Your task to perform on an android device: View the shopping cart on costco. Search for logitech g pro on costco, select the first entry, add it to the cart, then select checkout. Image 0: 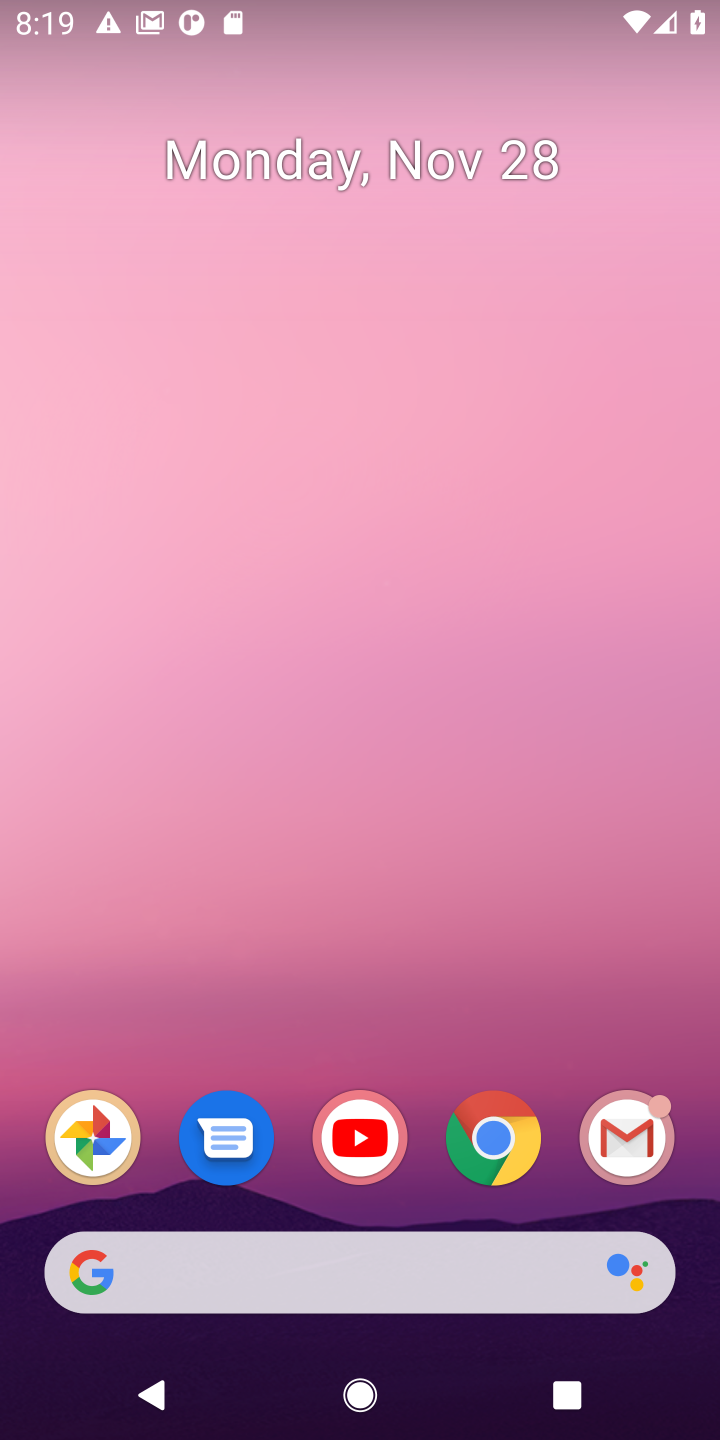
Step 0: click (498, 1142)
Your task to perform on an android device: View the shopping cart on costco. Search for logitech g pro on costco, select the first entry, add it to the cart, then select checkout. Image 1: 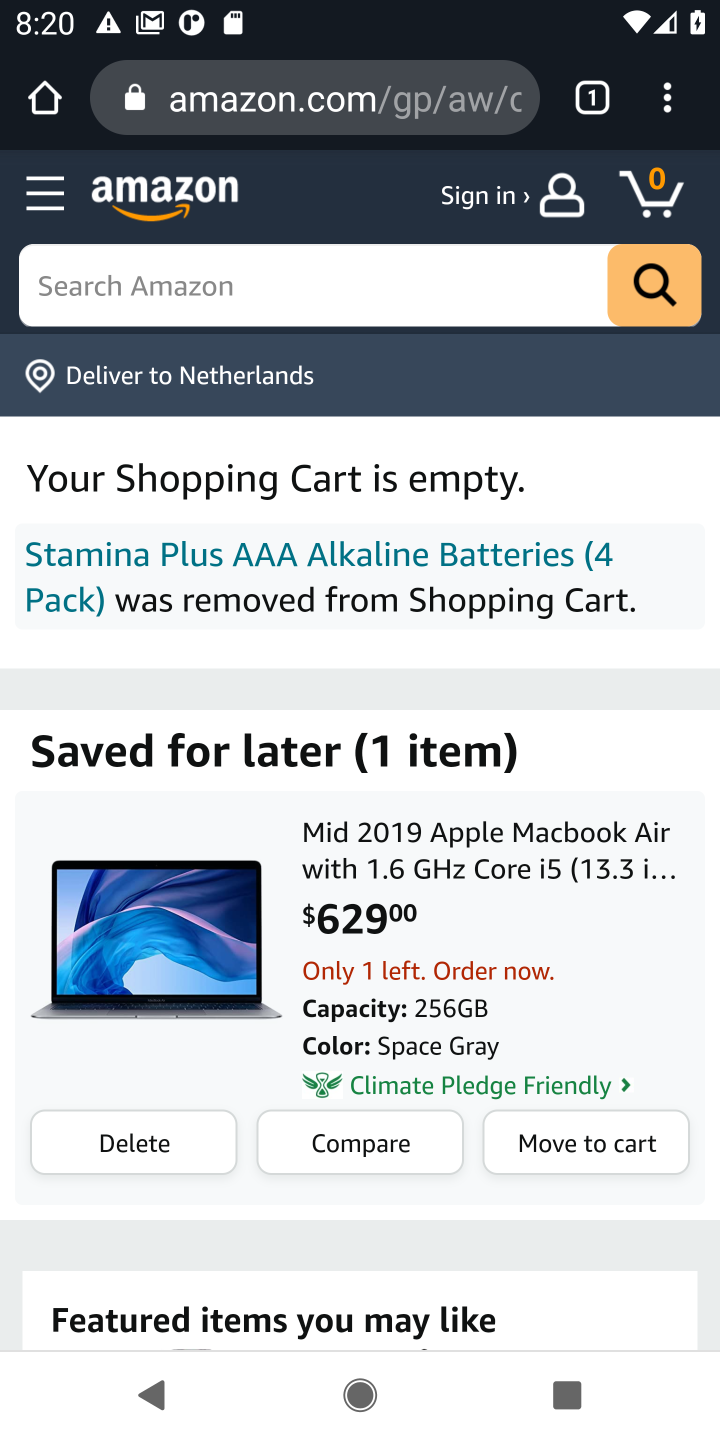
Step 1: click (262, 107)
Your task to perform on an android device: View the shopping cart on costco. Search for logitech g pro on costco, select the first entry, add it to the cart, then select checkout. Image 2: 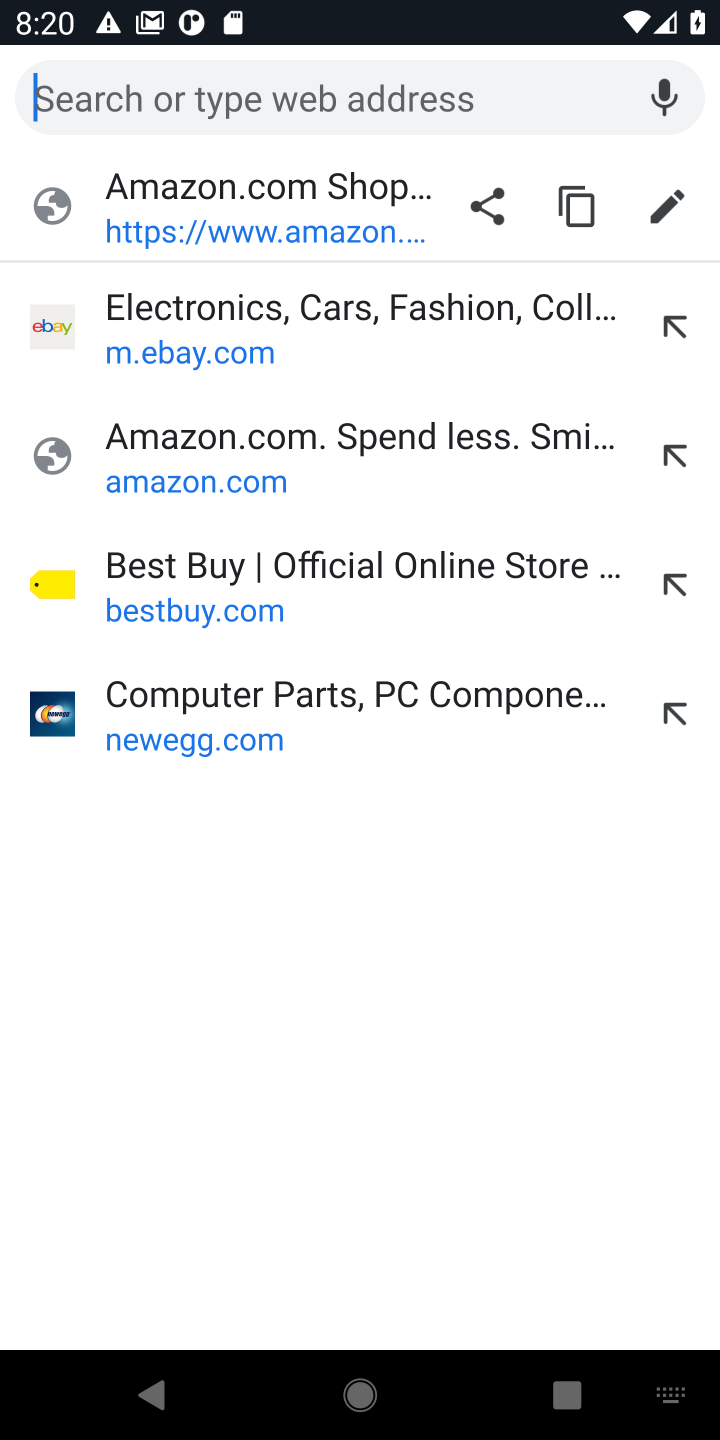
Step 2: type "costco.com"
Your task to perform on an android device: View the shopping cart on costco. Search for logitech g pro on costco, select the first entry, add it to the cart, then select checkout. Image 3: 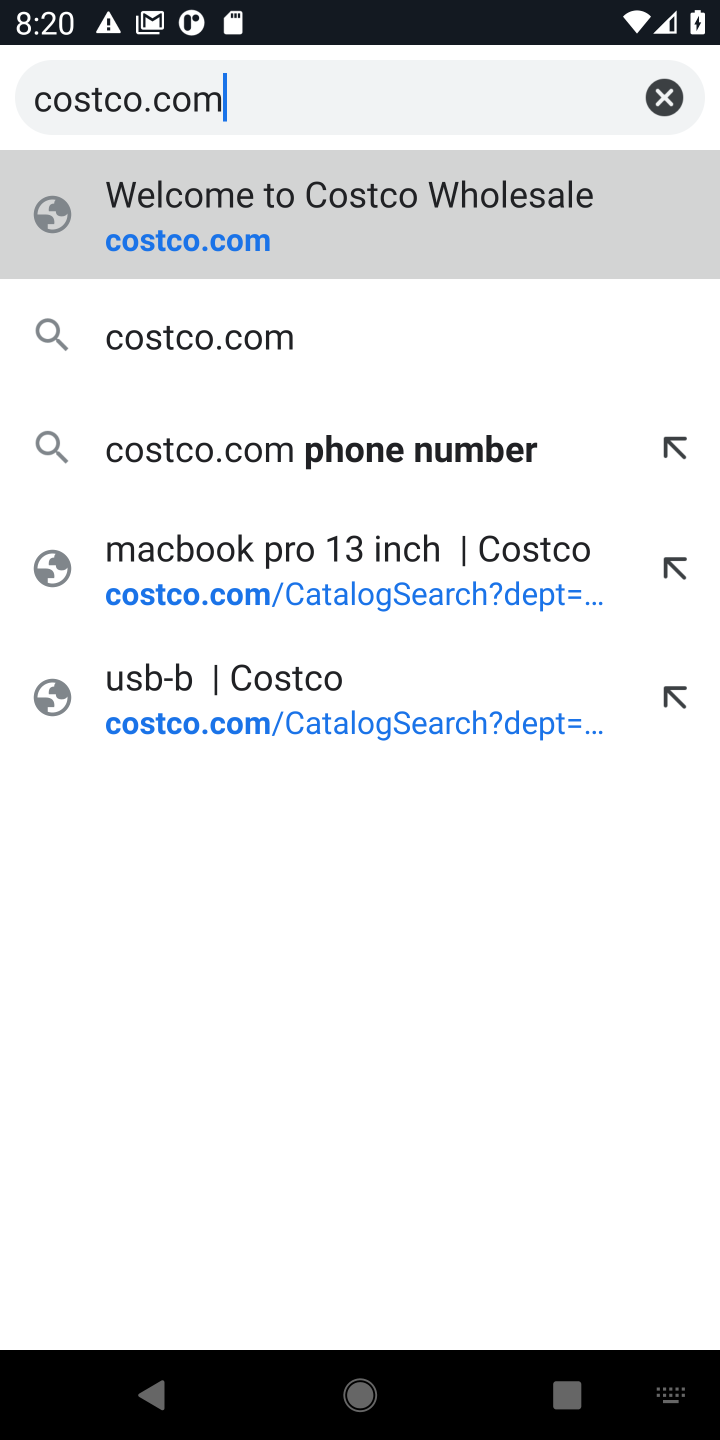
Step 3: click (206, 234)
Your task to perform on an android device: View the shopping cart on costco. Search for logitech g pro on costco, select the first entry, add it to the cart, then select checkout. Image 4: 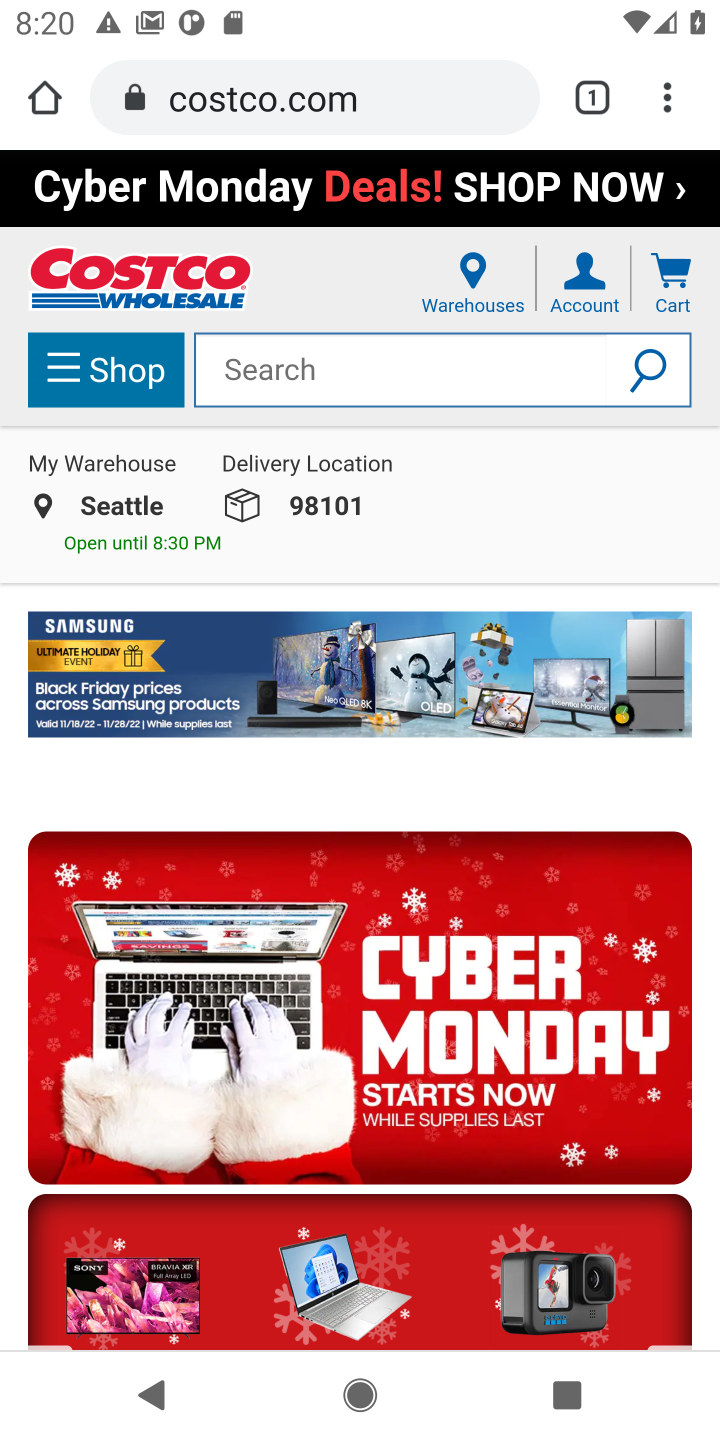
Step 4: click (660, 298)
Your task to perform on an android device: View the shopping cart on costco. Search for logitech g pro on costco, select the first entry, add it to the cart, then select checkout. Image 5: 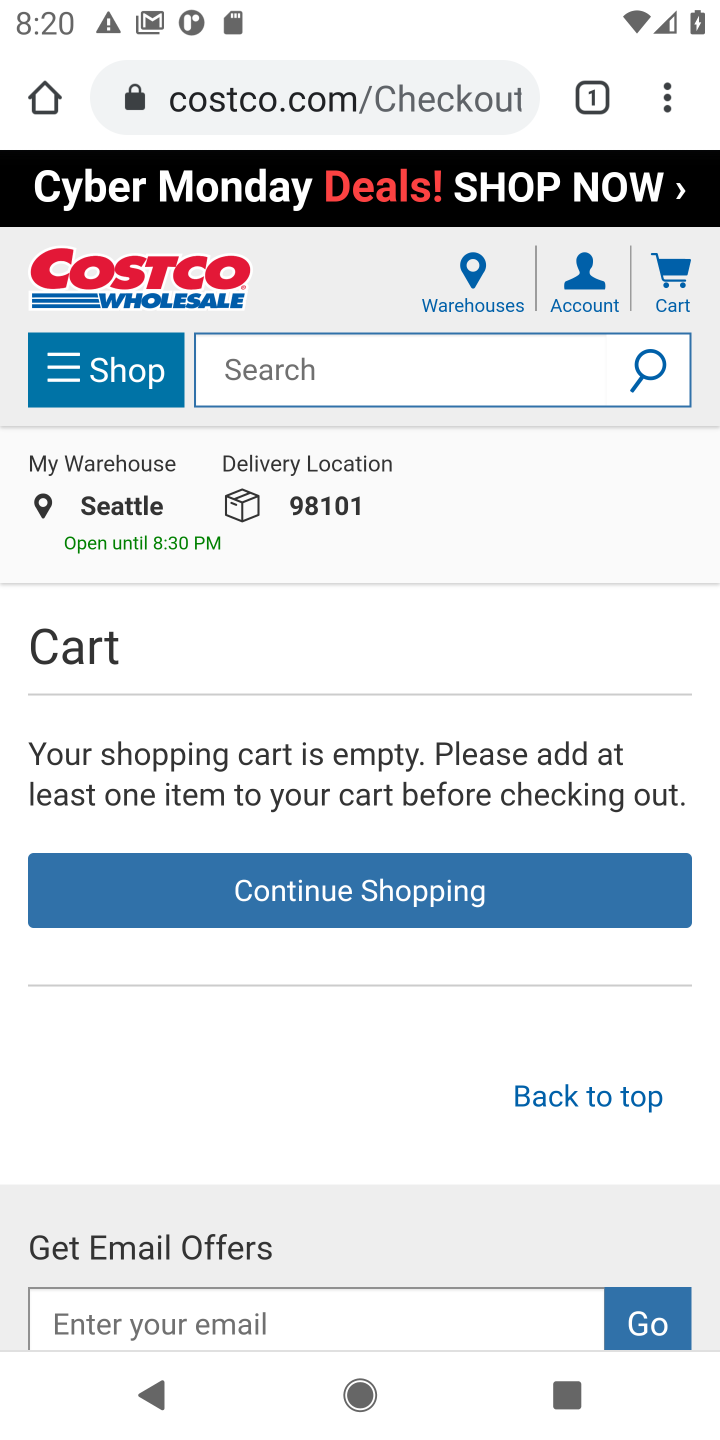
Step 5: click (265, 379)
Your task to perform on an android device: View the shopping cart on costco. Search for logitech g pro on costco, select the first entry, add it to the cart, then select checkout. Image 6: 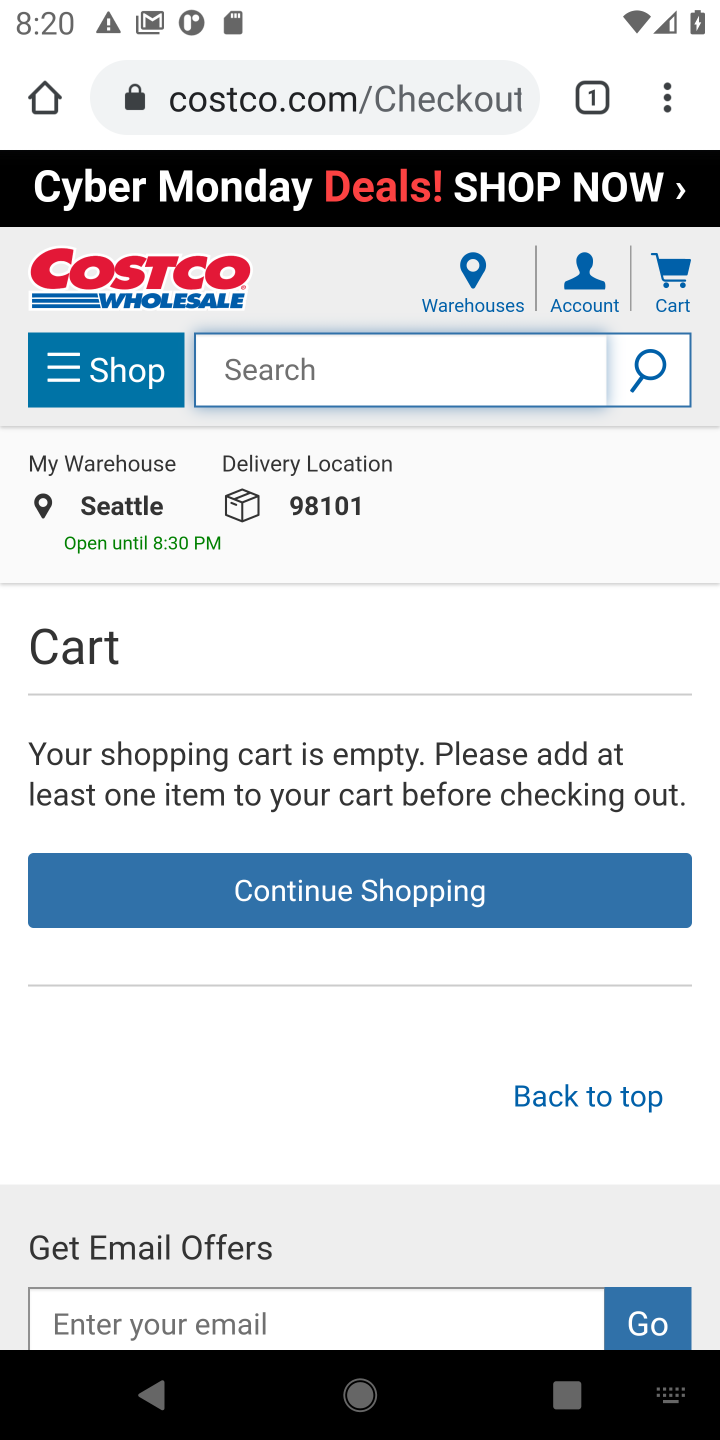
Step 6: type "logitech g pro"
Your task to perform on an android device: View the shopping cart on costco. Search for logitech g pro on costco, select the first entry, add it to the cart, then select checkout. Image 7: 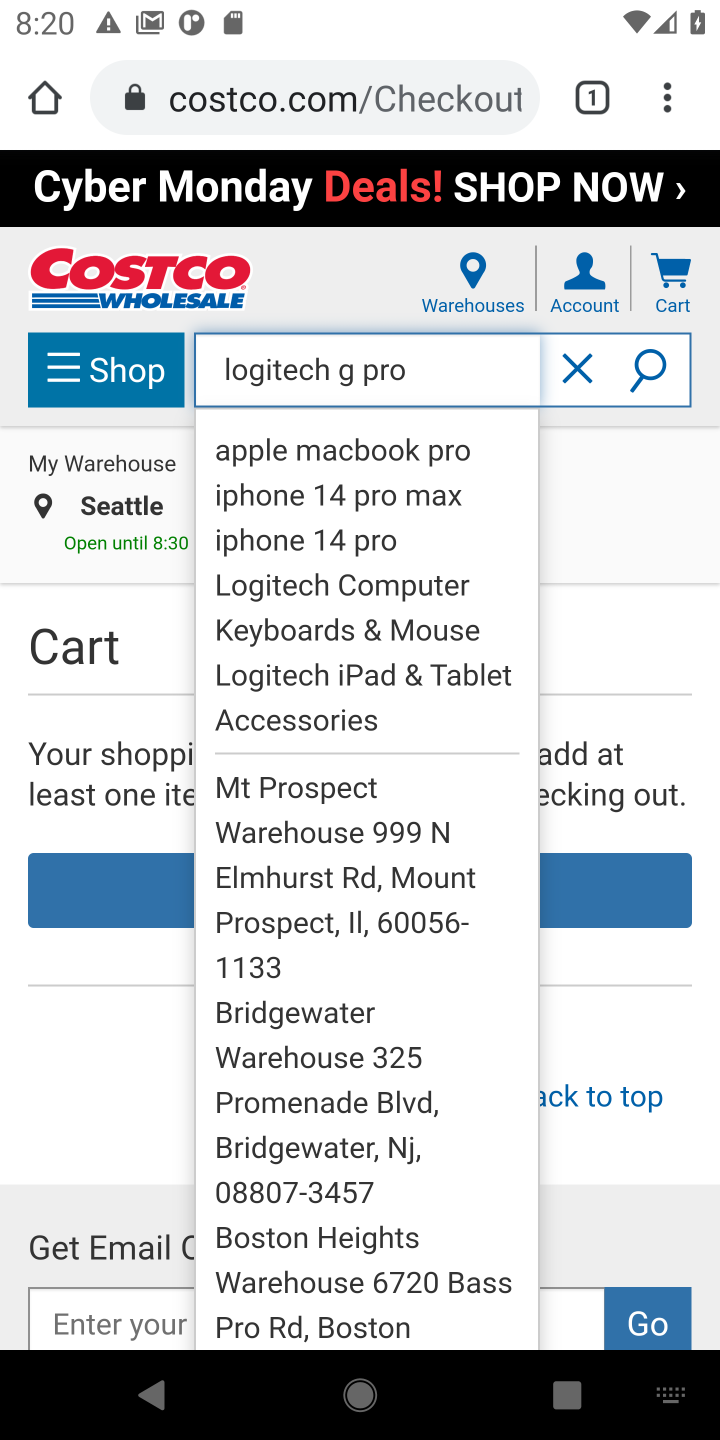
Step 7: click (649, 364)
Your task to perform on an android device: View the shopping cart on costco. Search for logitech g pro on costco, select the first entry, add it to the cart, then select checkout. Image 8: 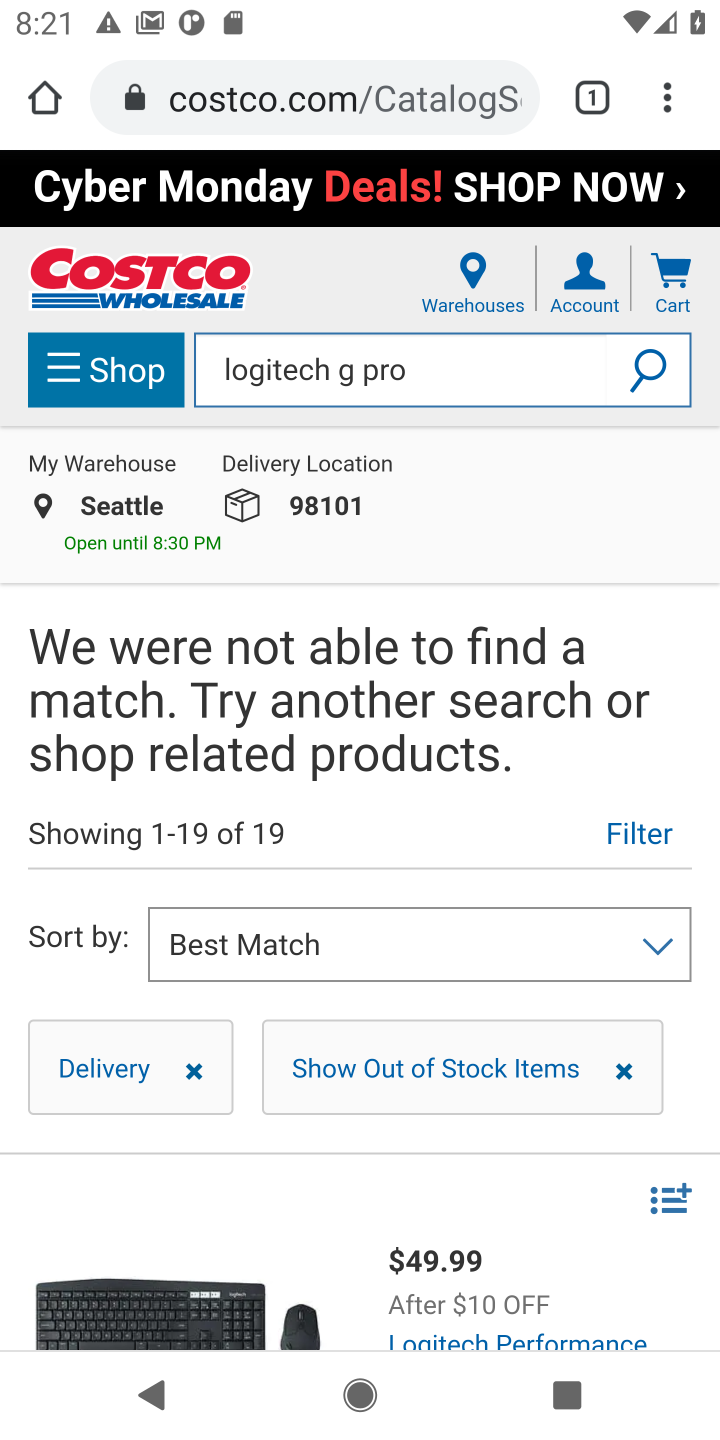
Step 8: task complete